Your task to perform on an android device: Open Wikipedia Image 0: 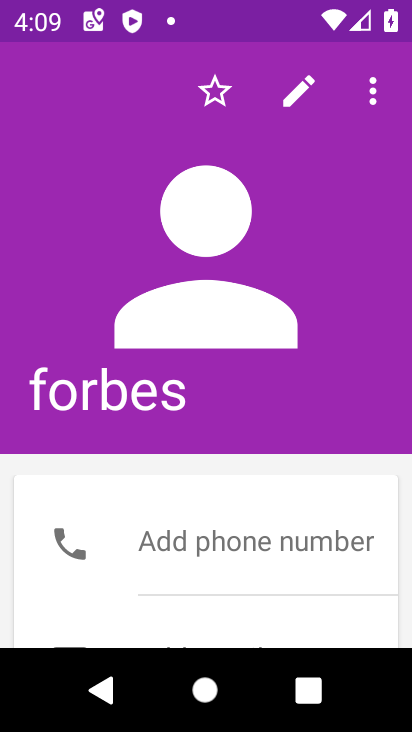
Step 0: press home button
Your task to perform on an android device: Open Wikipedia Image 1: 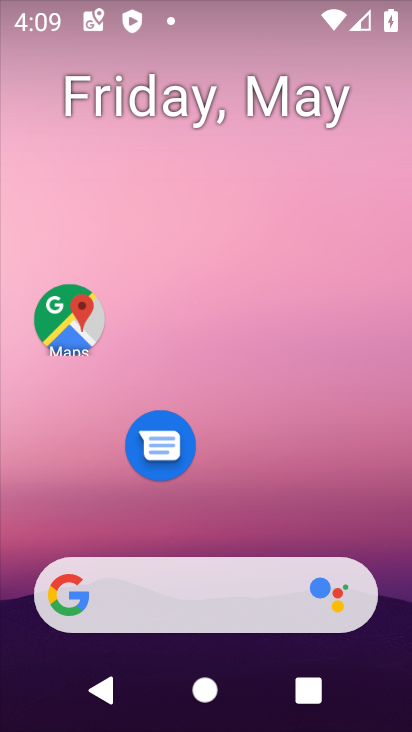
Step 1: drag from (204, 513) to (272, 15)
Your task to perform on an android device: Open Wikipedia Image 2: 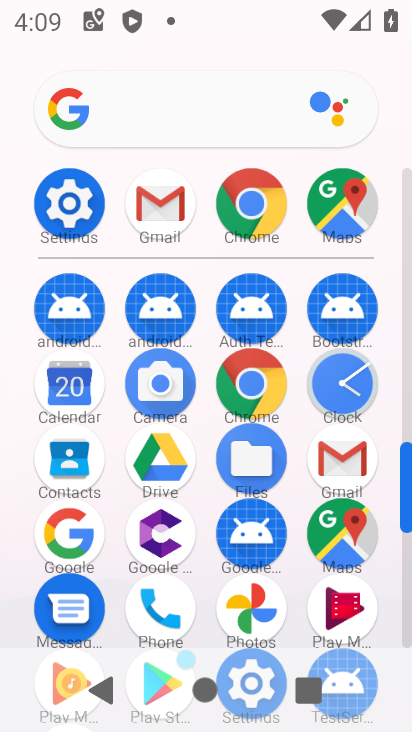
Step 2: click (260, 216)
Your task to perform on an android device: Open Wikipedia Image 3: 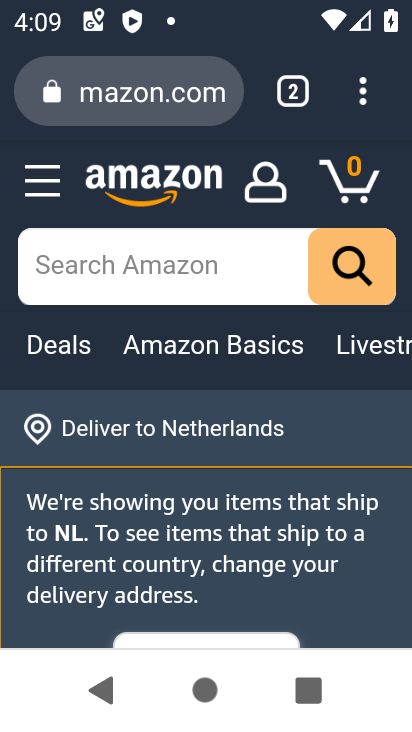
Step 3: click (181, 86)
Your task to perform on an android device: Open Wikipedia Image 4: 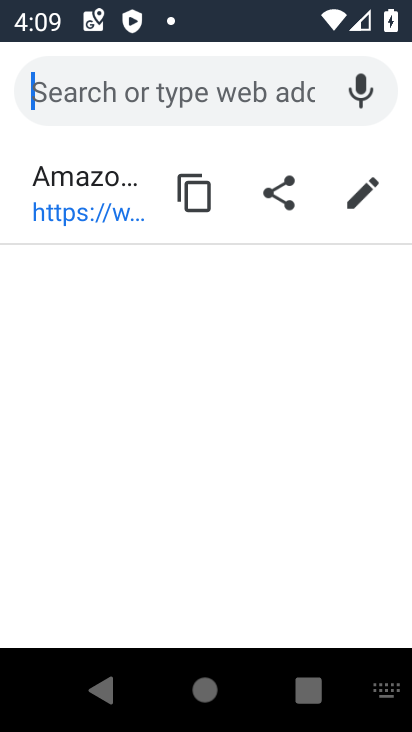
Step 4: type "wikipedia"
Your task to perform on an android device: Open Wikipedia Image 5: 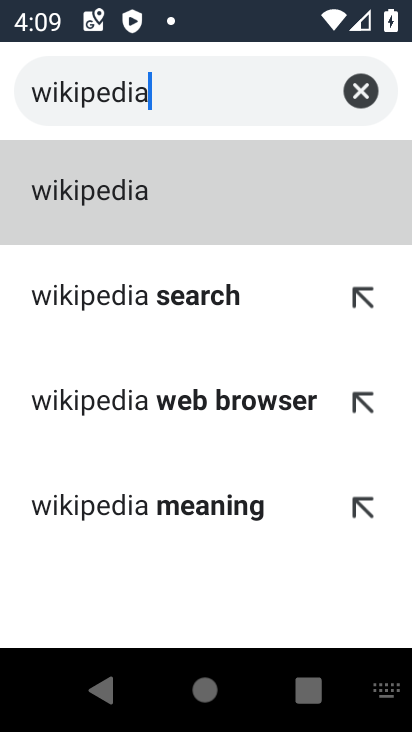
Step 5: click (180, 223)
Your task to perform on an android device: Open Wikipedia Image 6: 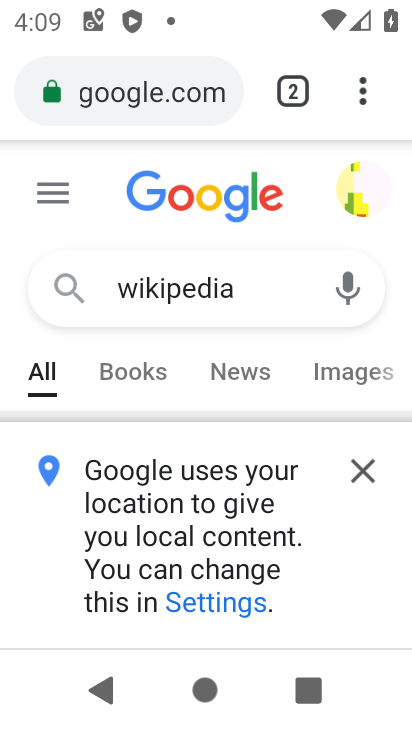
Step 6: click (373, 475)
Your task to perform on an android device: Open Wikipedia Image 7: 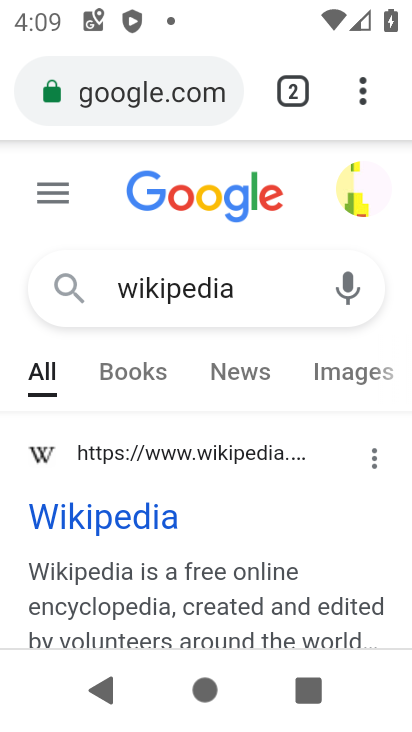
Step 7: task complete